Your task to perform on an android device: Do I have any events tomorrow? Image 0: 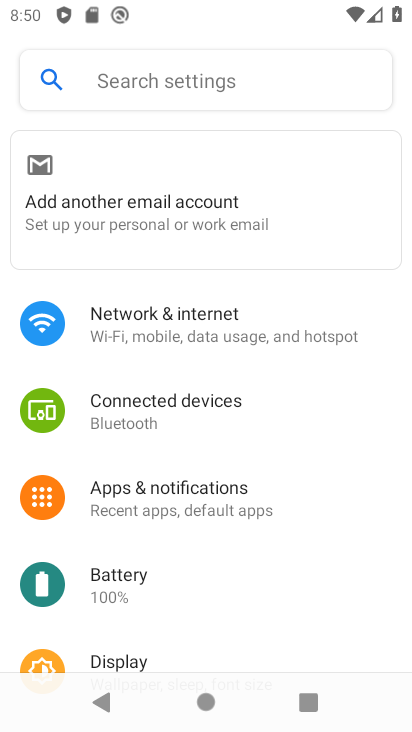
Step 0: press home button
Your task to perform on an android device: Do I have any events tomorrow? Image 1: 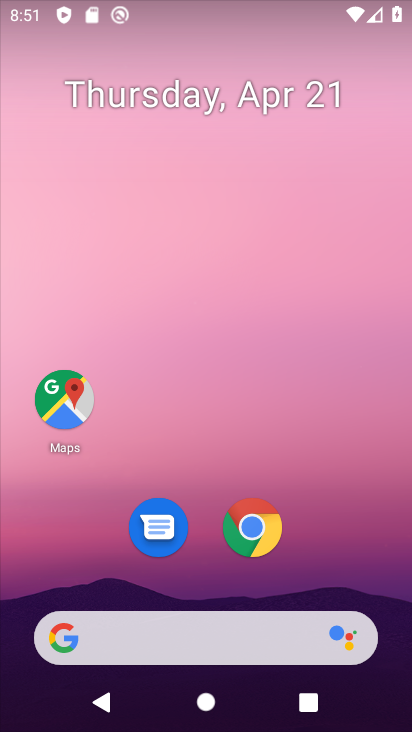
Step 1: drag from (302, 450) to (321, 177)
Your task to perform on an android device: Do I have any events tomorrow? Image 2: 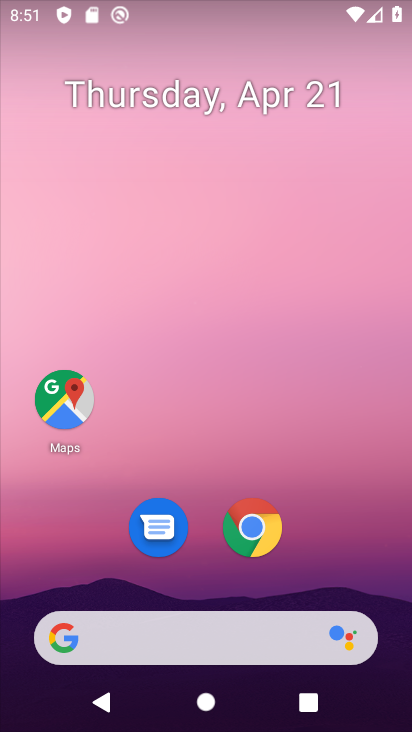
Step 2: drag from (283, 541) to (260, 217)
Your task to perform on an android device: Do I have any events tomorrow? Image 3: 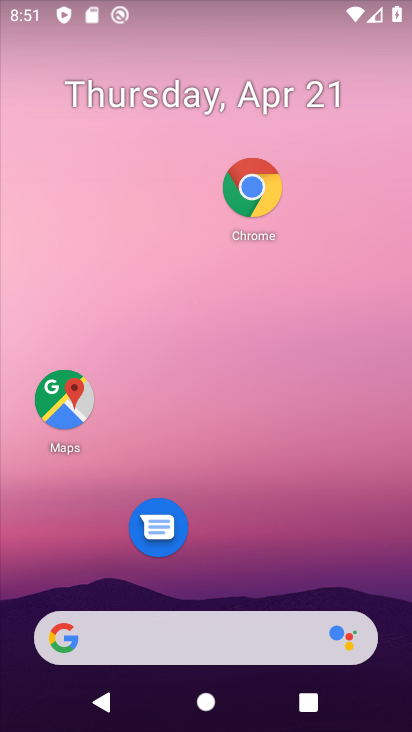
Step 3: drag from (280, 604) to (277, 201)
Your task to perform on an android device: Do I have any events tomorrow? Image 4: 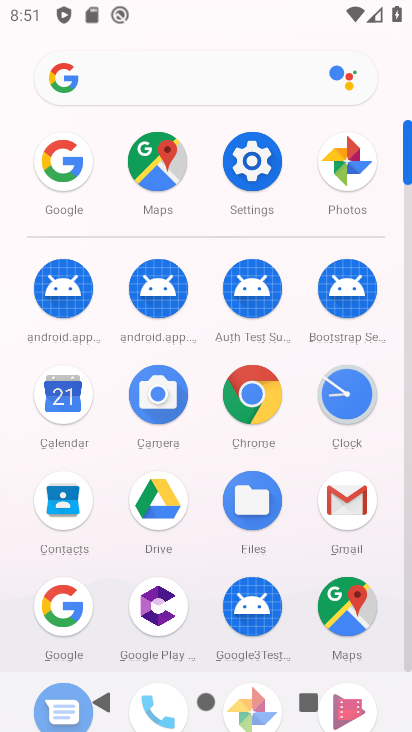
Step 4: click (61, 411)
Your task to perform on an android device: Do I have any events tomorrow? Image 5: 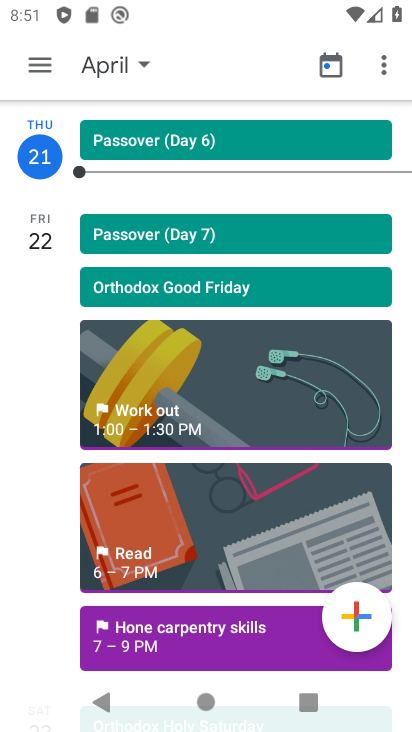
Step 5: click (117, 64)
Your task to perform on an android device: Do I have any events tomorrow? Image 6: 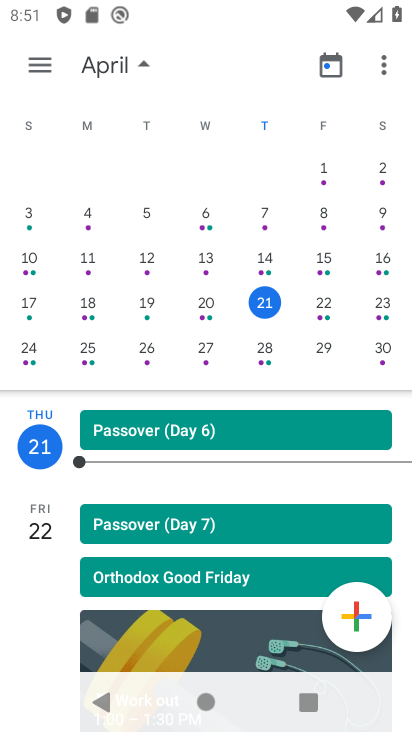
Step 6: click (331, 311)
Your task to perform on an android device: Do I have any events tomorrow? Image 7: 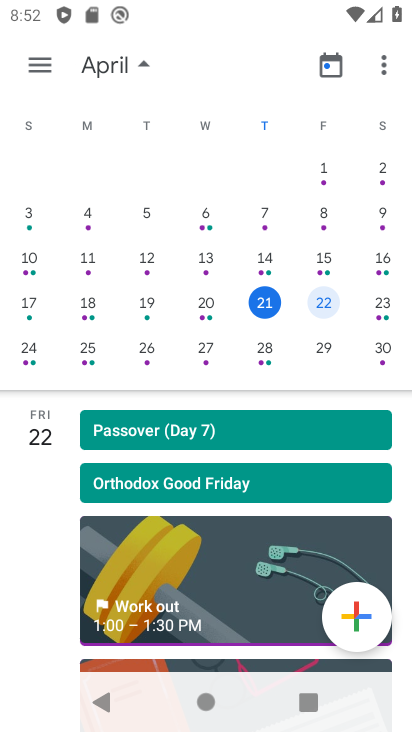
Step 7: task complete